Your task to perform on an android device: Open privacy settings Image 0: 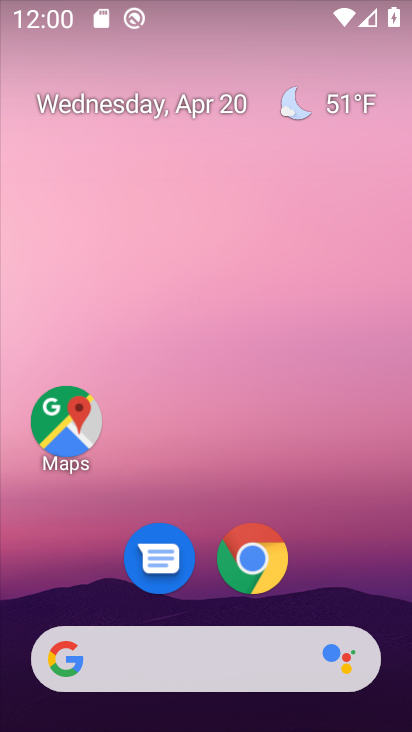
Step 0: drag from (387, 583) to (337, 204)
Your task to perform on an android device: Open privacy settings Image 1: 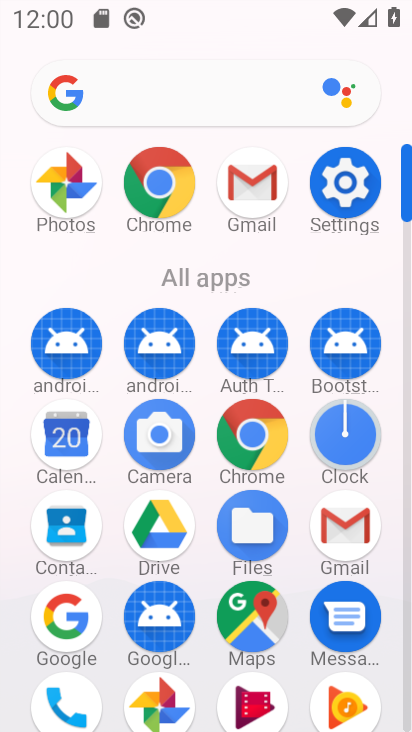
Step 1: click (404, 687)
Your task to perform on an android device: Open privacy settings Image 2: 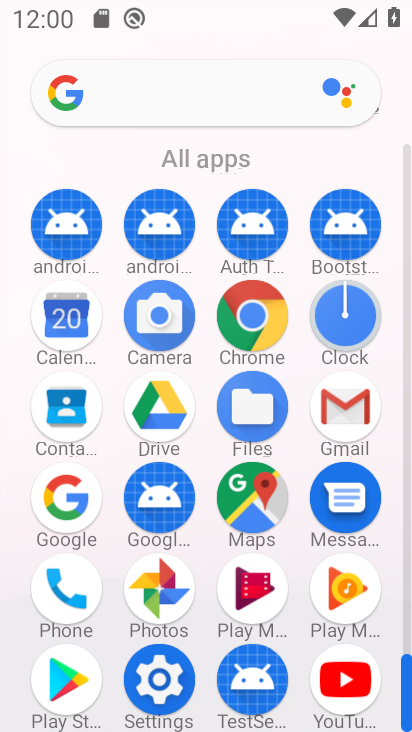
Step 2: click (161, 680)
Your task to perform on an android device: Open privacy settings Image 3: 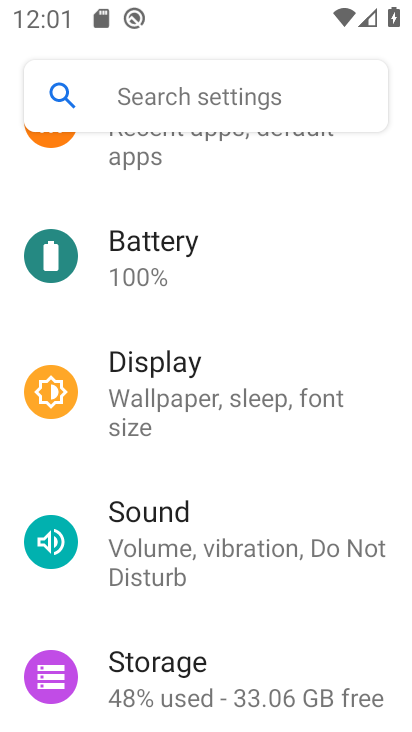
Step 3: drag from (316, 518) to (348, 208)
Your task to perform on an android device: Open privacy settings Image 4: 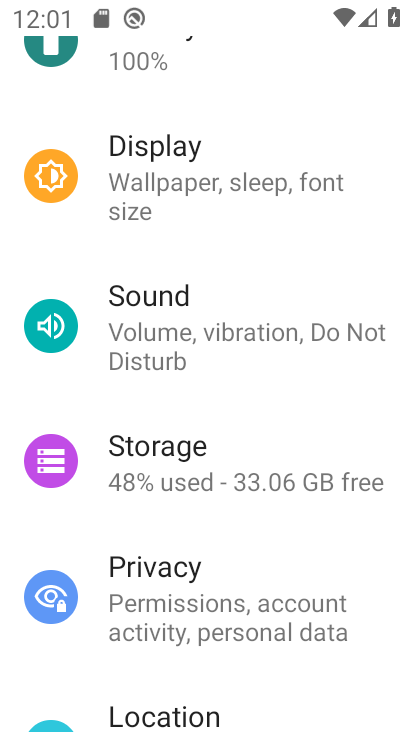
Step 4: click (155, 577)
Your task to perform on an android device: Open privacy settings Image 5: 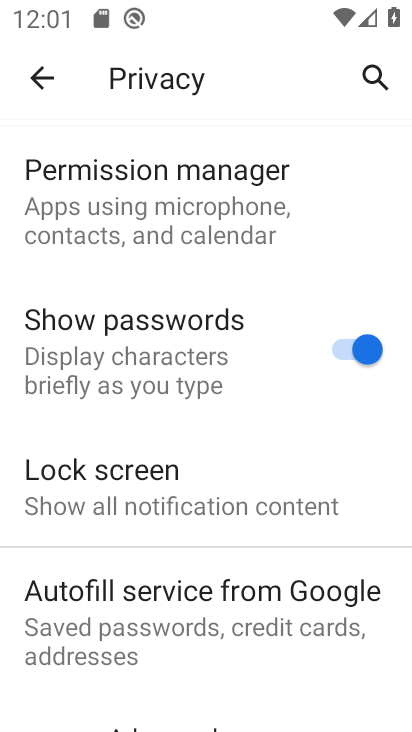
Step 5: drag from (226, 493) to (228, 261)
Your task to perform on an android device: Open privacy settings Image 6: 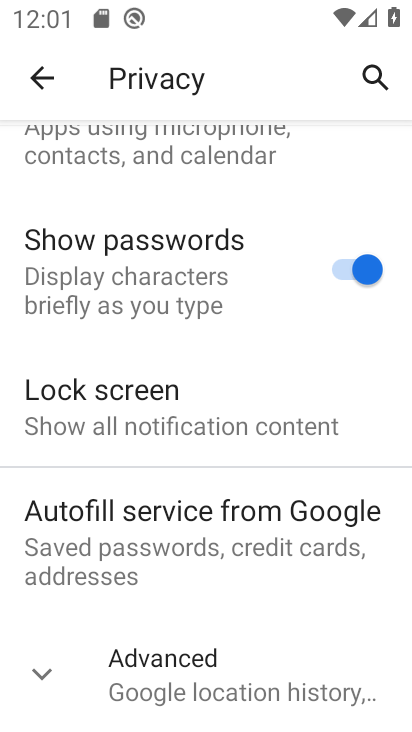
Step 6: drag from (234, 573) to (242, 270)
Your task to perform on an android device: Open privacy settings Image 7: 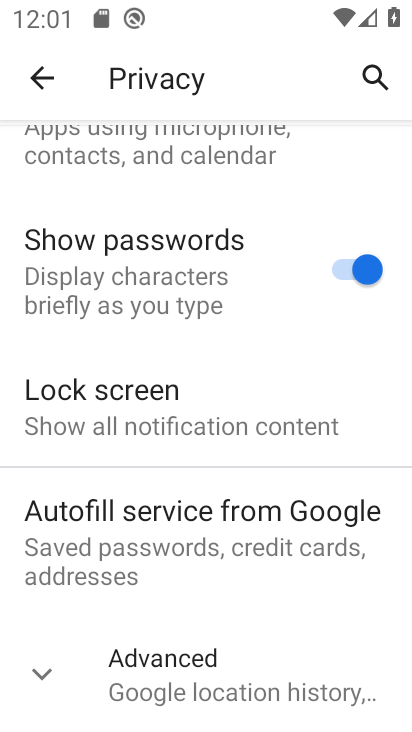
Step 7: click (41, 672)
Your task to perform on an android device: Open privacy settings Image 8: 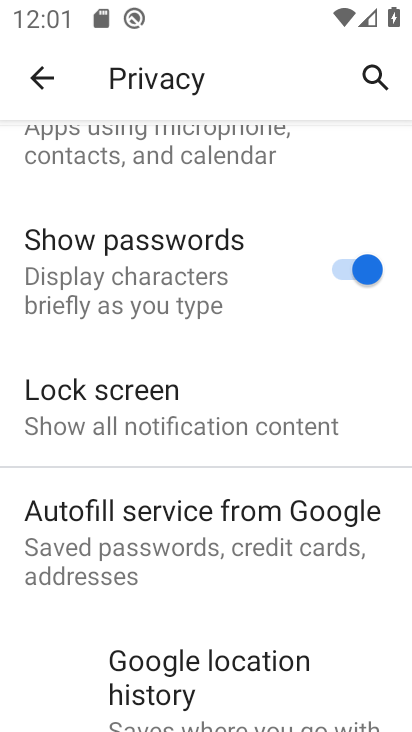
Step 8: task complete